Your task to perform on an android device: turn off javascript in the chrome app Image 0: 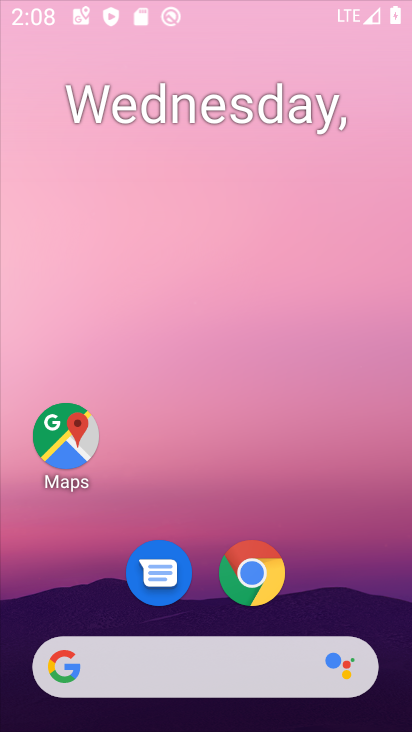
Step 0: drag from (200, 590) to (244, 152)
Your task to perform on an android device: turn off javascript in the chrome app Image 1: 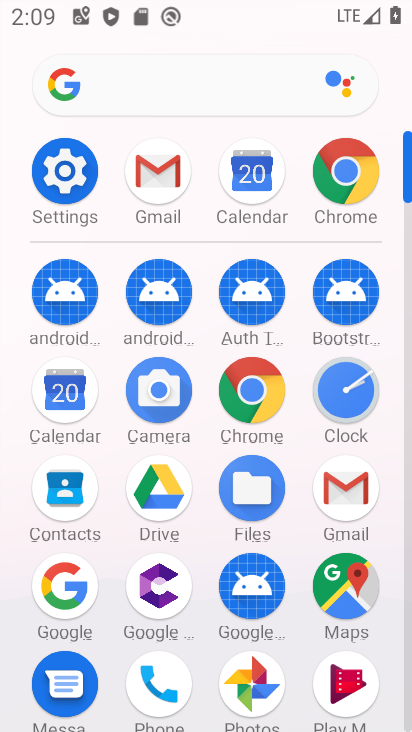
Step 1: click (344, 173)
Your task to perform on an android device: turn off javascript in the chrome app Image 2: 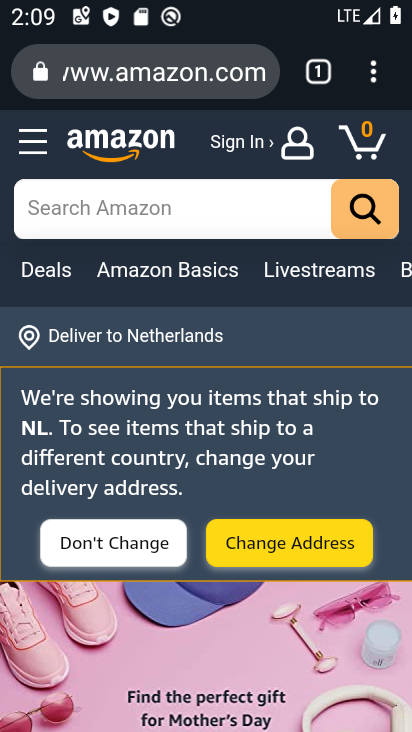
Step 2: click (369, 69)
Your task to perform on an android device: turn off javascript in the chrome app Image 3: 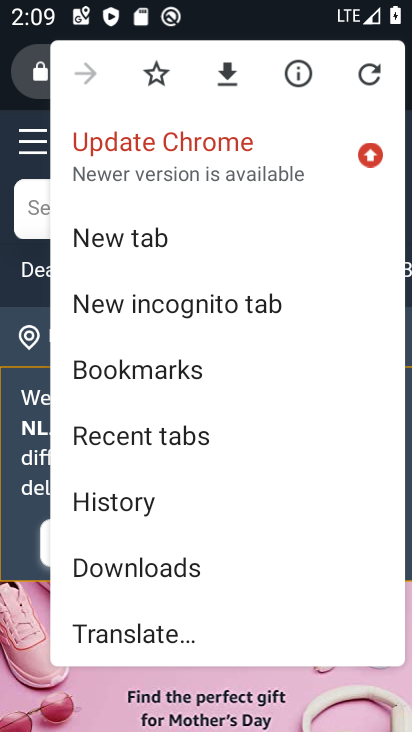
Step 3: drag from (261, 453) to (261, 146)
Your task to perform on an android device: turn off javascript in the chrome app Image 4: 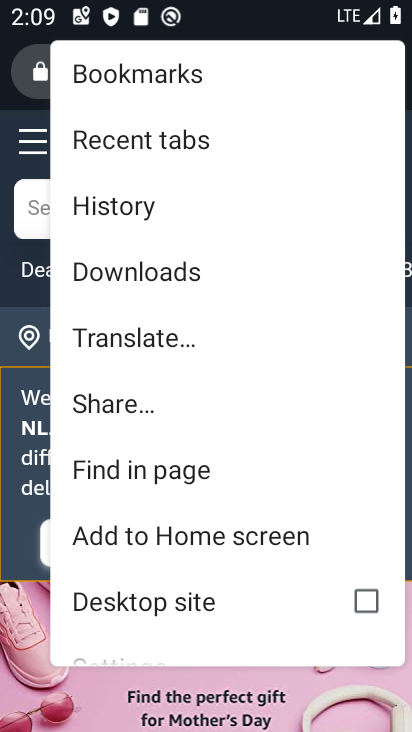
Step 4: drag from (240, 555) to (221, 223)
Your task to perform on an android device: turn off javascript in the chrome app Image 5: 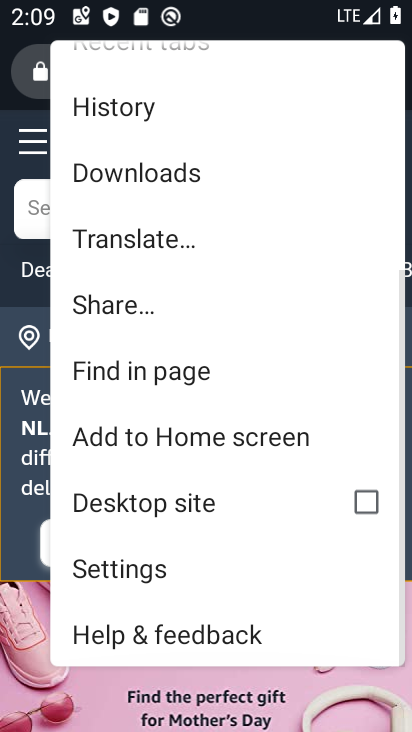
Step 5: click (153, 557)
Your task to perform on an android device: turn off javascript in the chrome app Image 6: 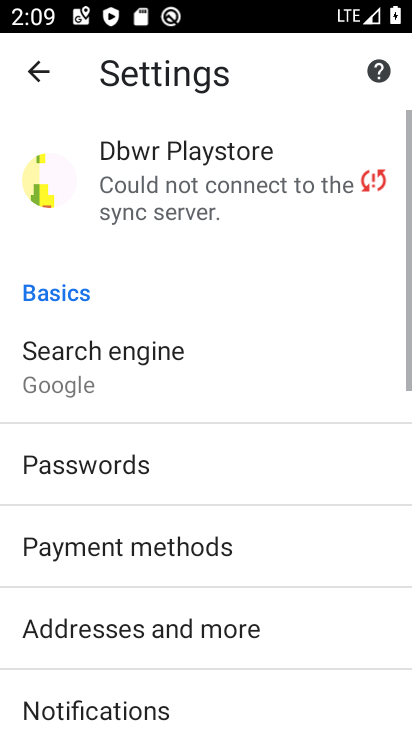
Step 6: drag from (193, 464) to (174, 202)
Your task to perform on an android device: turn off javascript in the chrome app Image 7: 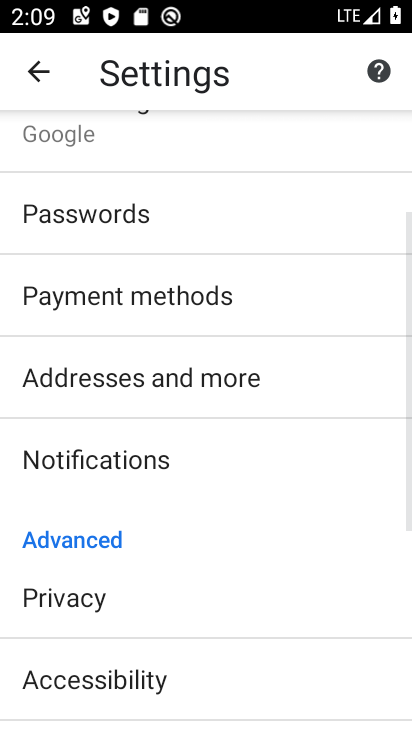
Step 7: drag from (199, 592) to (194, 311)
Your task to perform on an android device: turn off javascript in the chrome app Image 8: 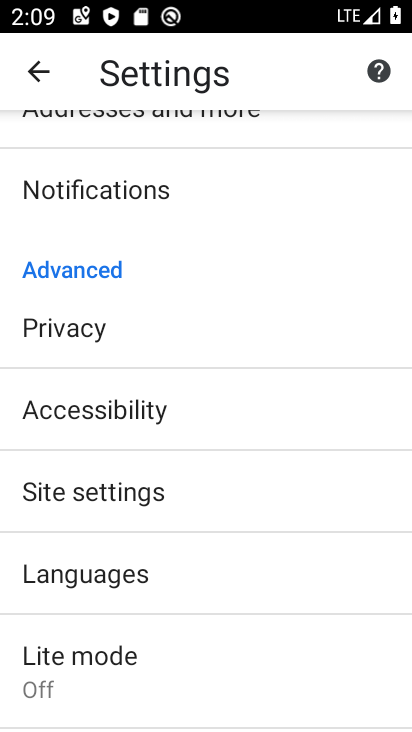
Step 8: click (140, 495)
Your task to perform on an android device: turn off javascript in the chrome app Image 9: 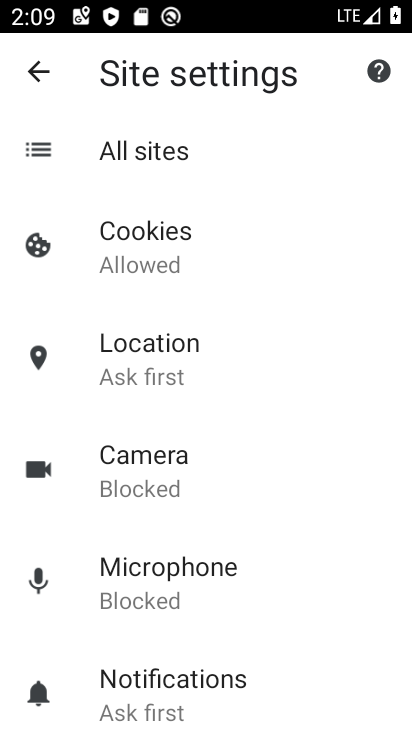
Step 9: drag from (238, 561) to (231, 310)
Your task to perform on an android device: turn off javascript in the chrome app Image 10: 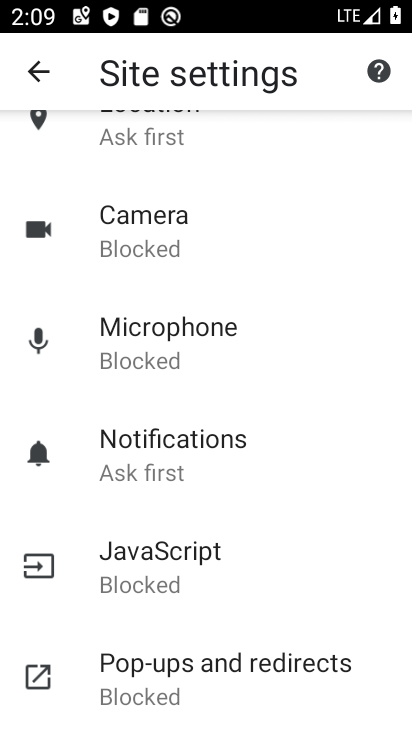
Step 10: click (174, 558)
Your task to perform on an android device: turn off javascript in the chrome app Image 11: 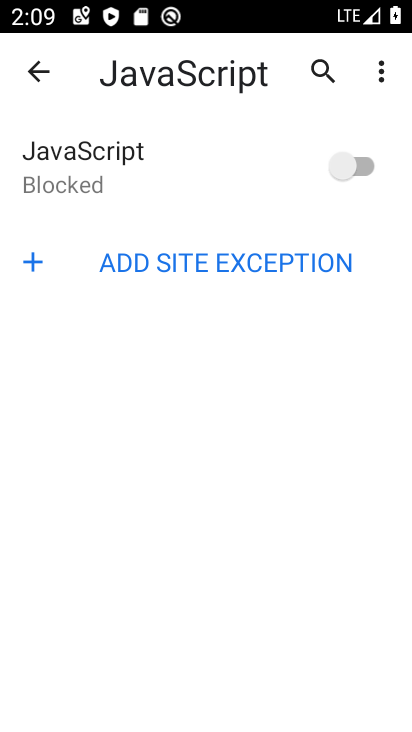
Step 11: task complete